Your task to perform on an android device: open app "ZOOM Cloud Meetings" (install if not already installed) and enter user name: "bauxite@icloud.com" and password: "dim" Image 0: 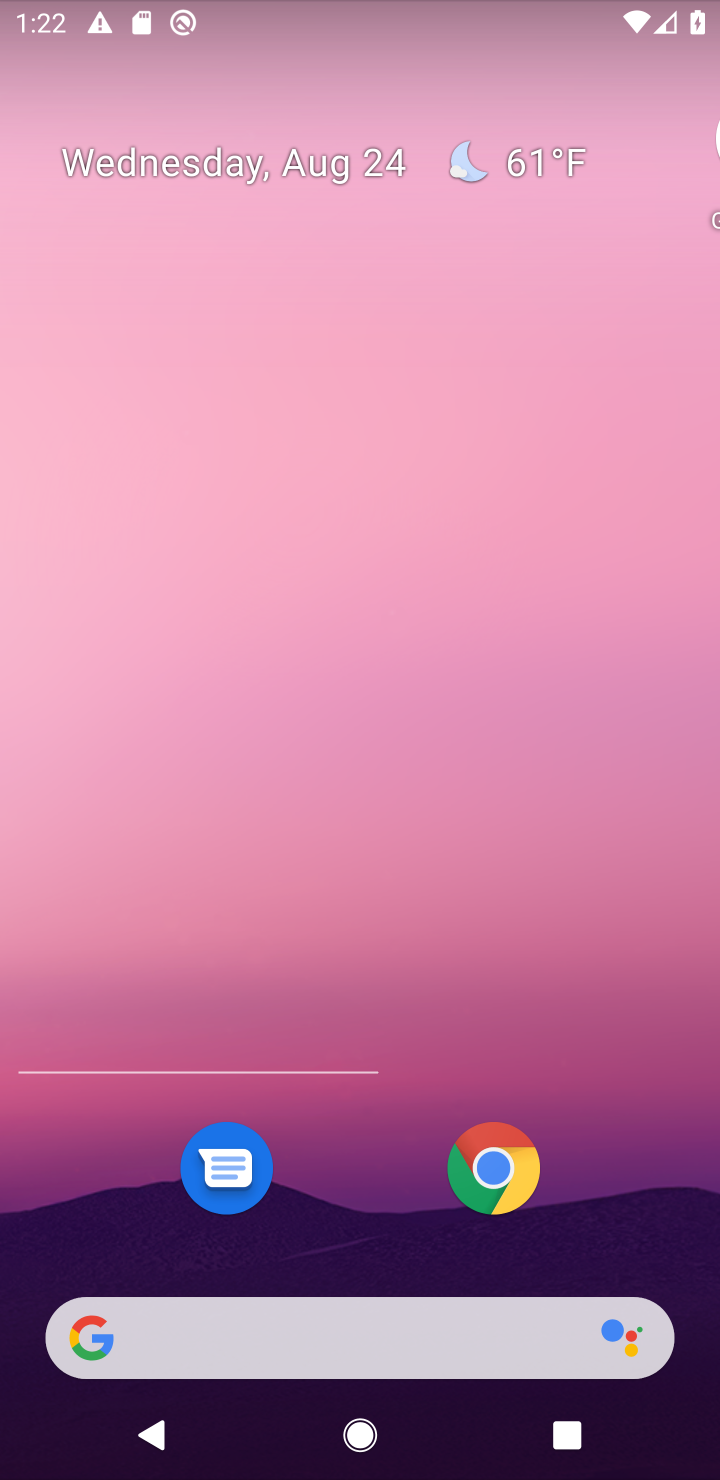
Step 0: press home button
Your task to perform on an android device: open app "ZOOM Cloud Meetings" (install if not already installed) and enter user name: "bauxite@icloud.com" and password: "dim" Image 1: 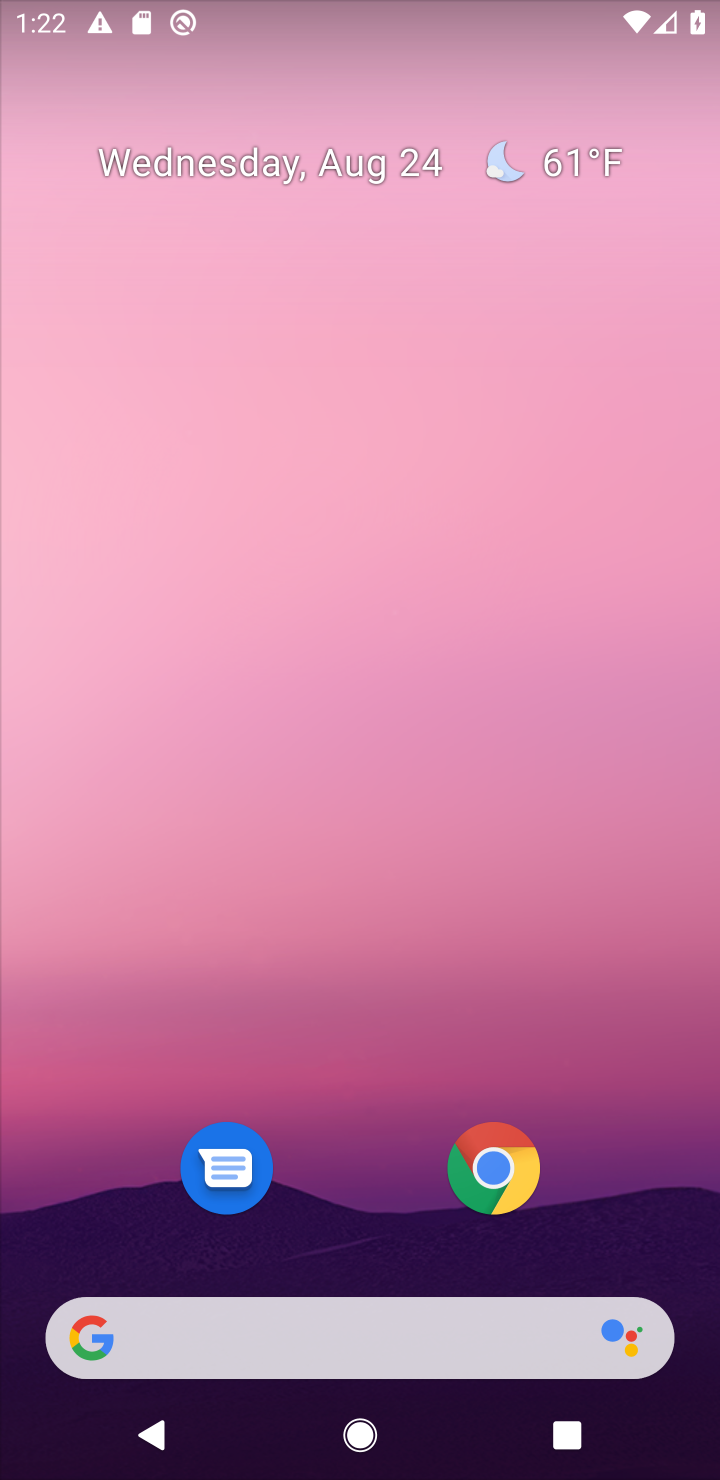
Step 1: drag from (677, 1237) to (664, 171)
Your task to perform on an android device: open app "ZOOM Cloud Meetings" (install if not already installed) and enter user name: "bauxite@icloud.com" and password: "dim" Image 2: 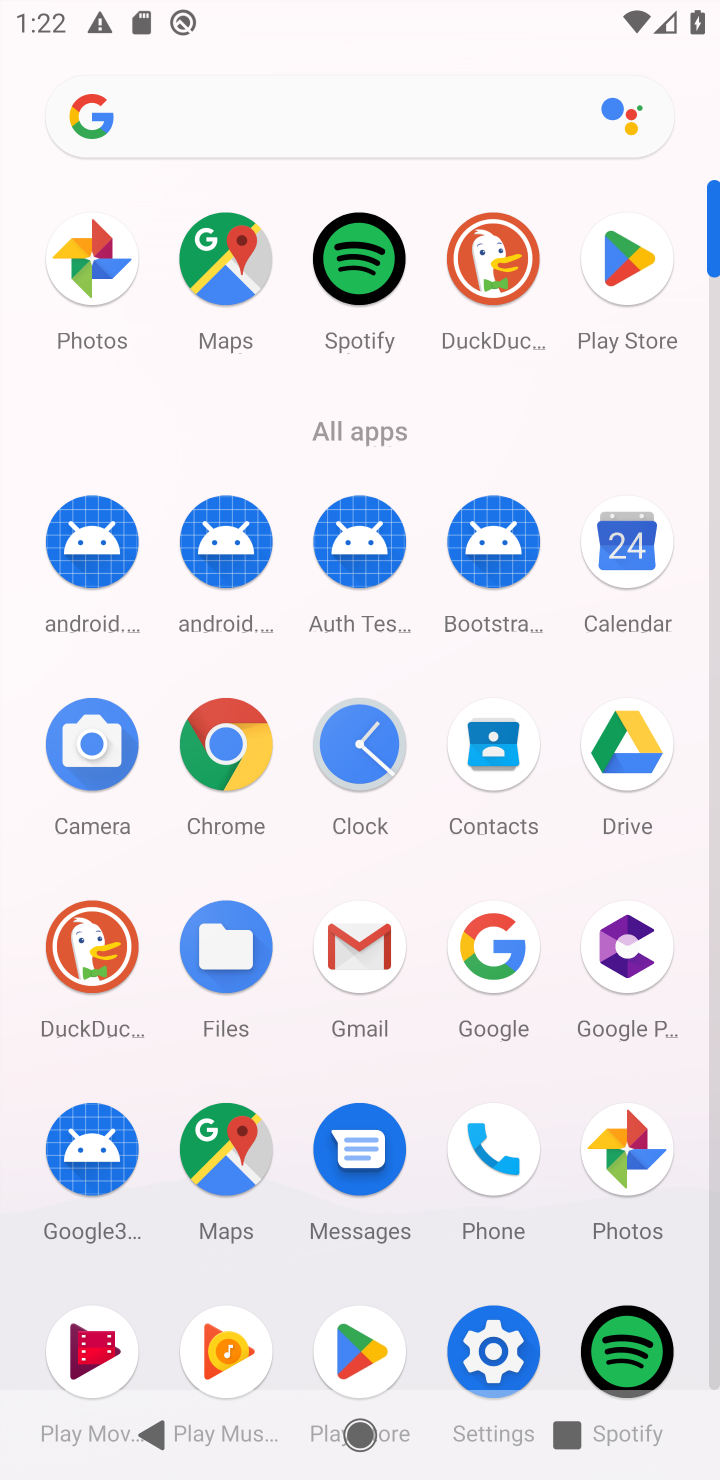
Step 2: click (363, 1351)
Your task to perform on an android device: open app "ZOOM Cloud Meetings" (install if not already installed) and enter user name: "bauxite@icloud.com" and password: "dim" Image 3: 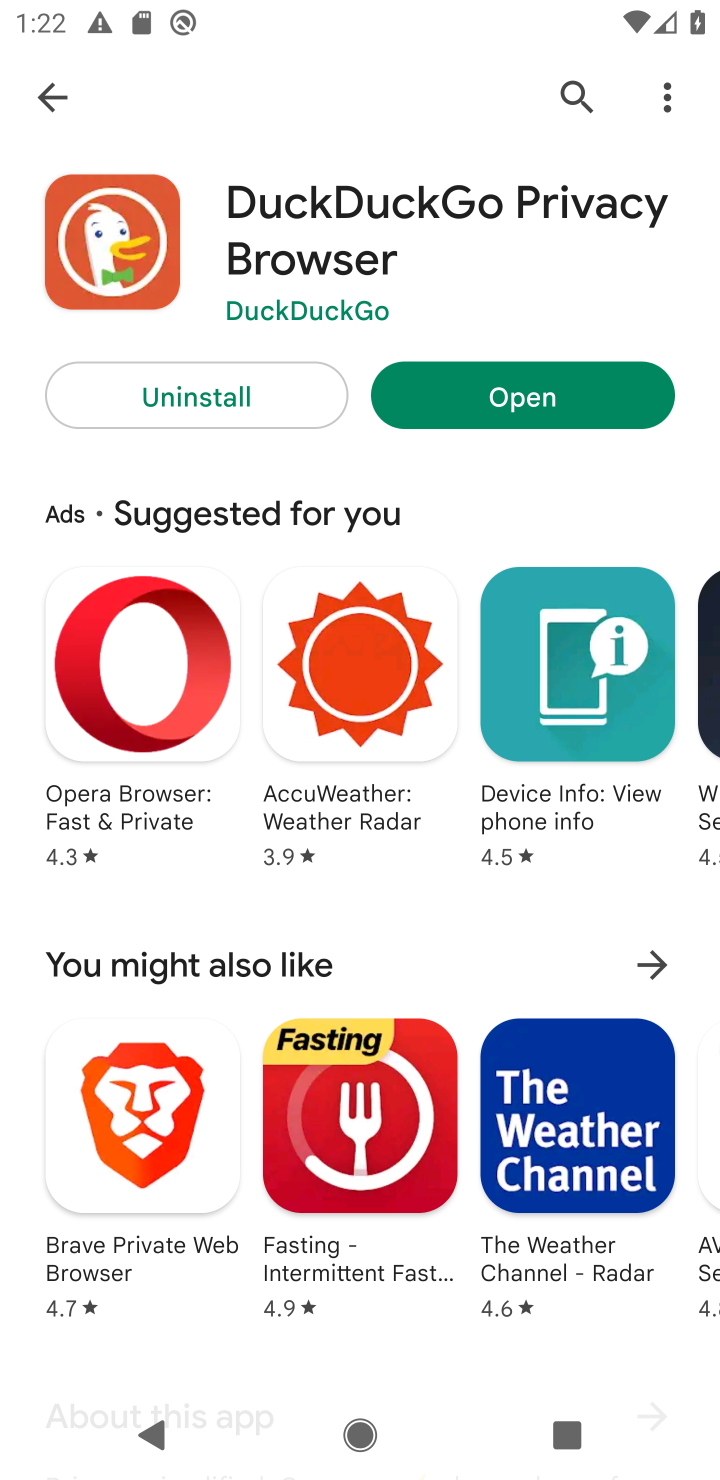
Step 3: click (566, 74)
Your task to perform on an android device: open app "ZOOM Cloud Meetings" (install if not already installed) and enter user name: "bauxite@icloud.com" and password: "dim" Image 4: 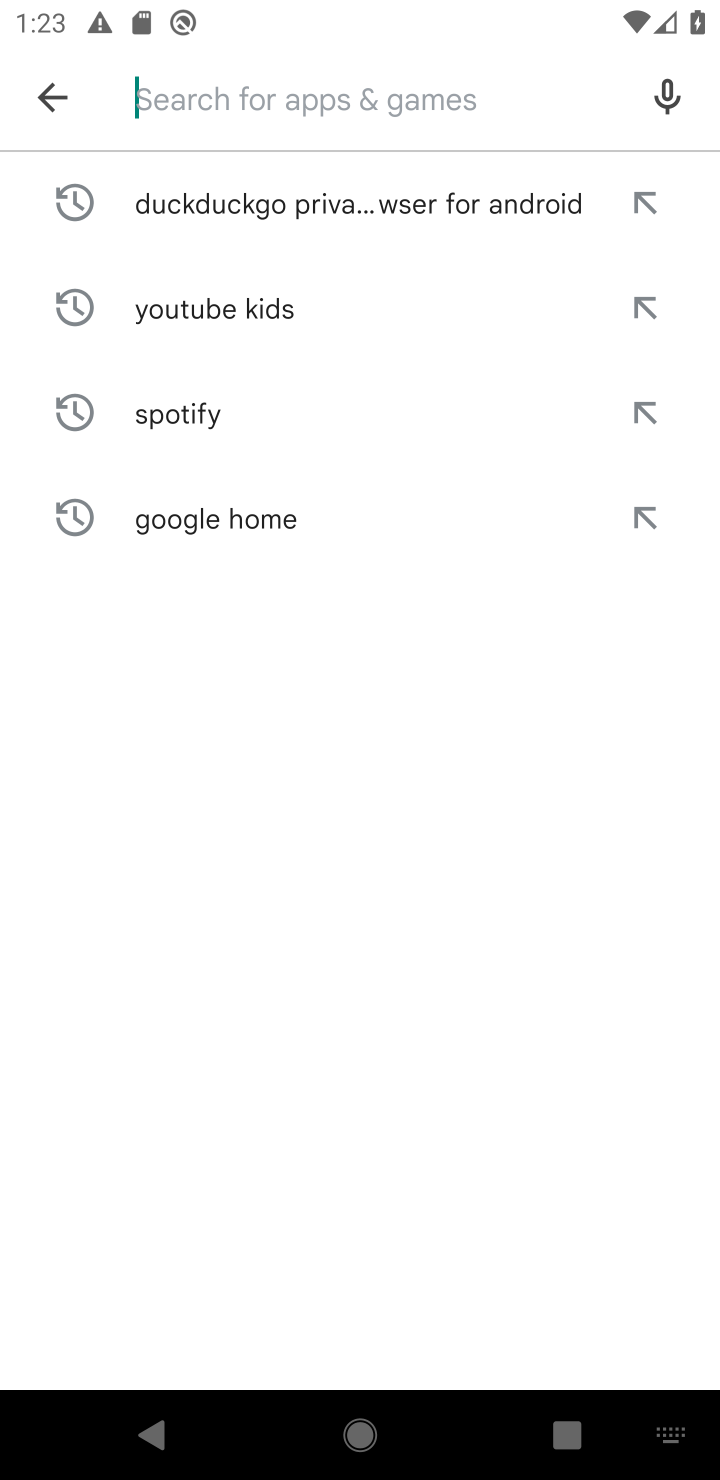
Step 4: type "ZOOM Cloud Meetings"
Your task to perform on an android device: open app "ZOOM Cloud Meetings" (install if not already installed) and enter user name: "bauxite@icloud.com" and password: "dim" Image 5: 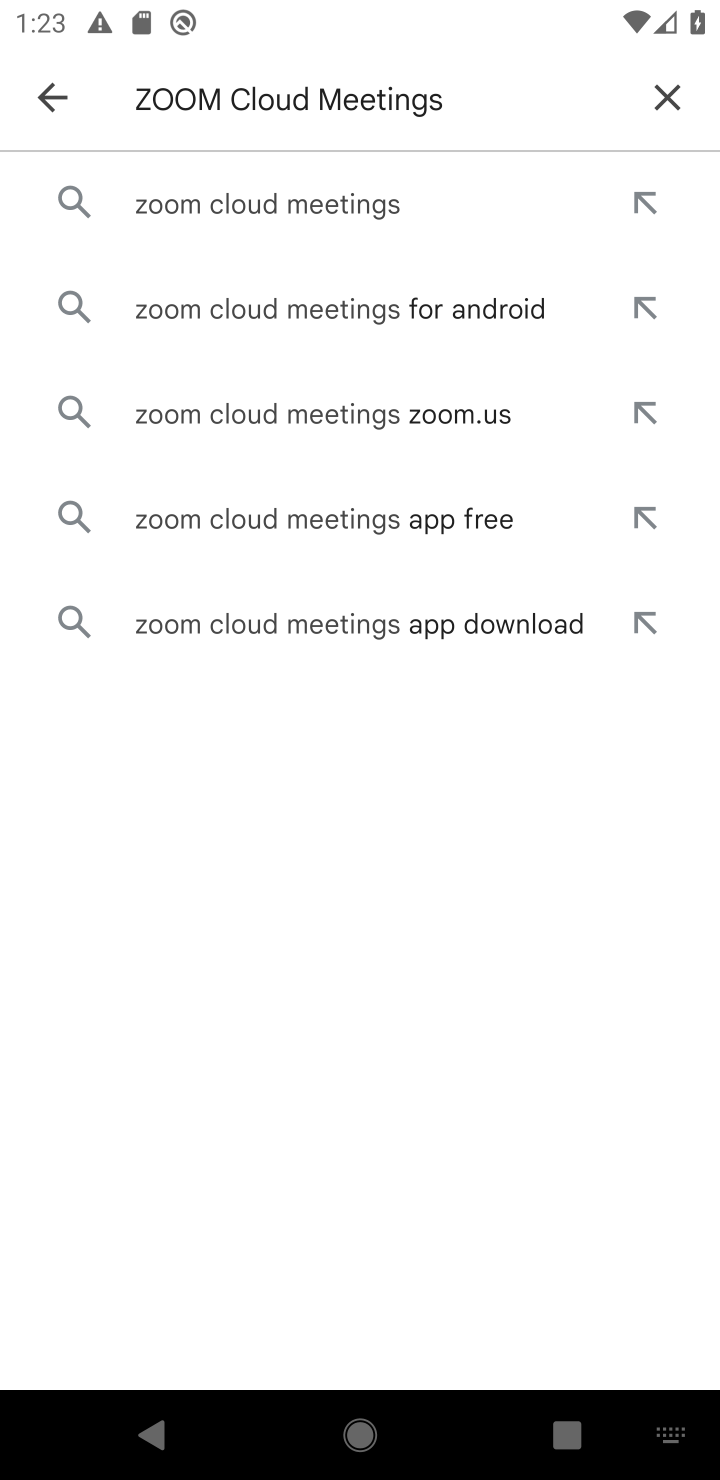
Step 5: click (225, 189)
Your task to perform on an android device: open app "ZOOM Cloud Meetings" (install if not already installed) and enter user name: "bauxite@icloud.com" and password: "dim" Image 6: 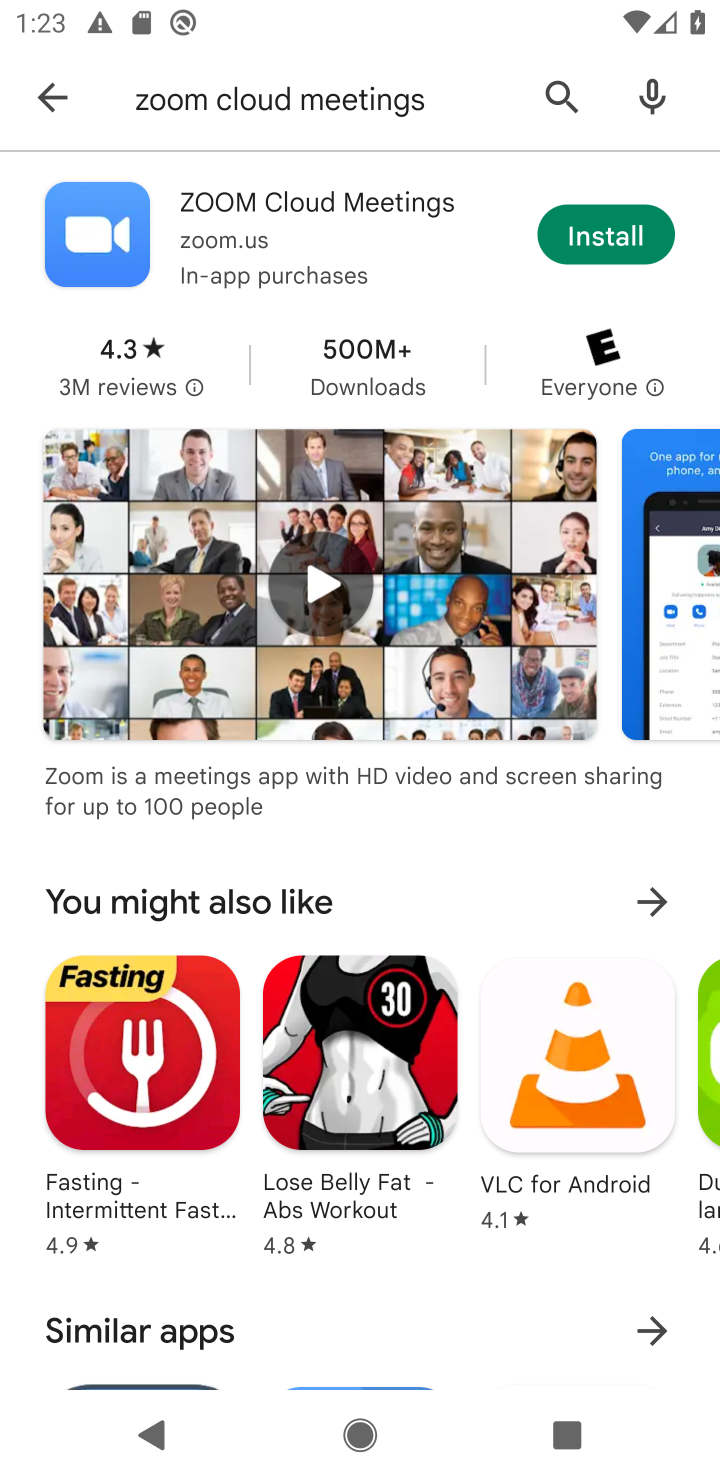
Step 6: click (218, 220)
Your task to perform on an android device: open app "ZOOM Cloud Meetings" (install if not already installed) and enter user name: "bauxite@icloud.com" and password: "dim" Image 7: 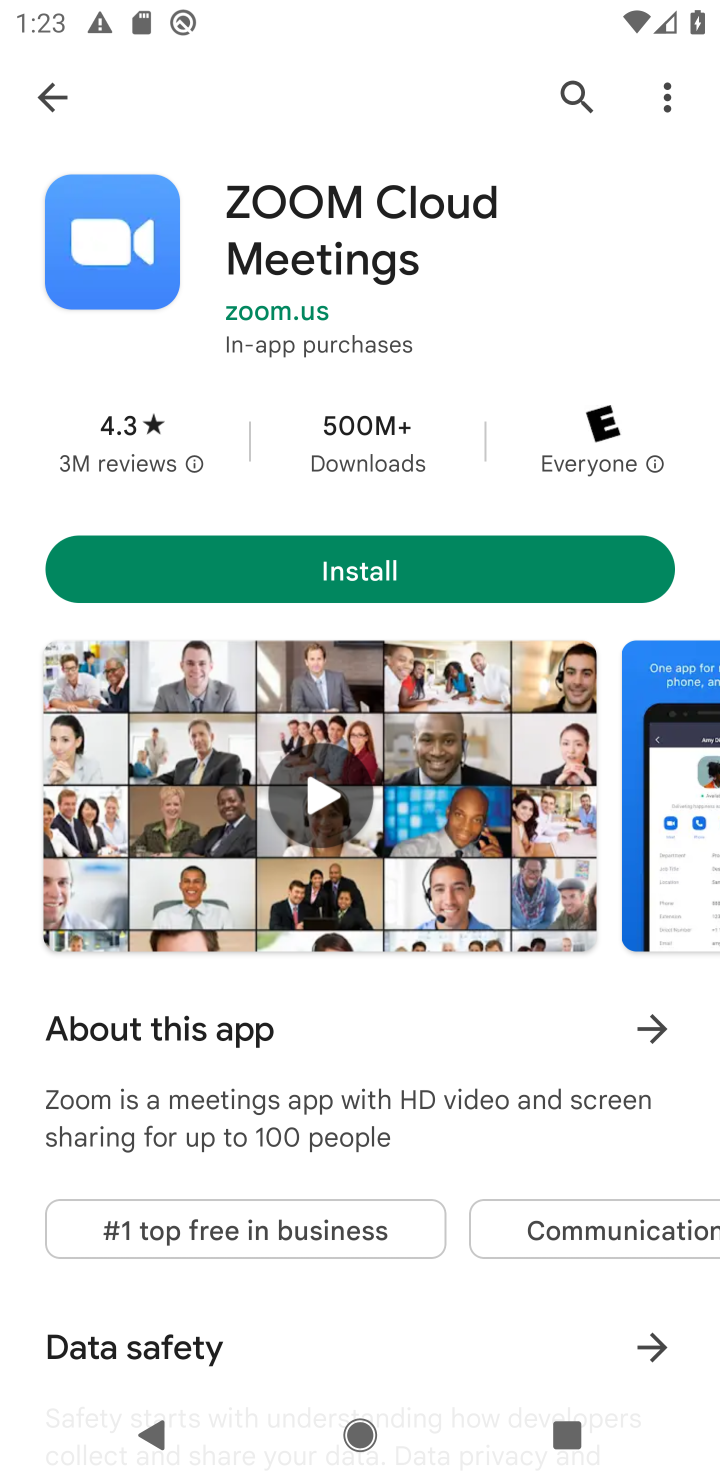
Step 7: click (364, 568)
Your task to perform on an android device: open app "ZOOM Cloud Meetings" (install if not already installed) and enter user name: "bauxite@icloud.com" and password: "dim" Image 8: 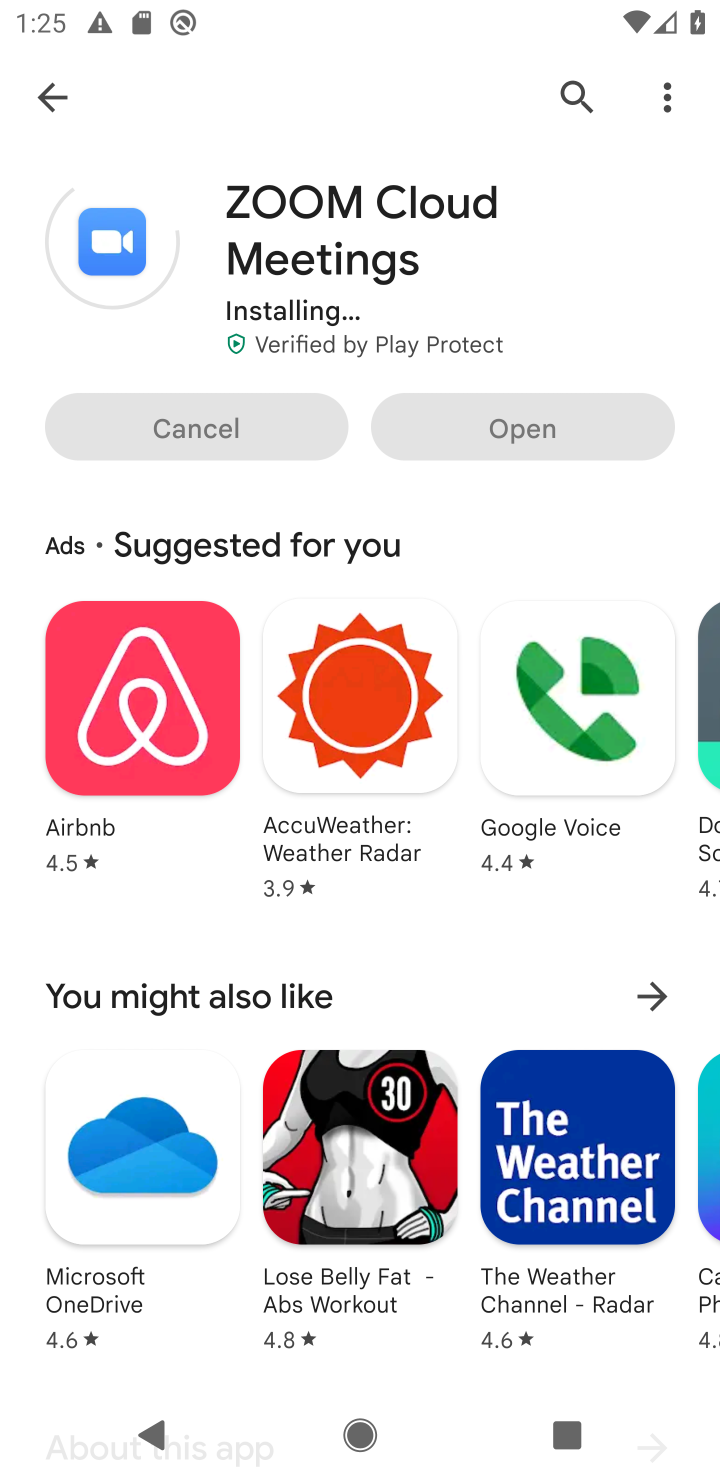
Step 8: drag from (349, 233) to (343, 352)
Your task to perform on an android device: open app "ZOOM Cloud Meetings" (install if not already installed) and enter user name: "bauxite@icloud.com" and password: "dim" Image 9: 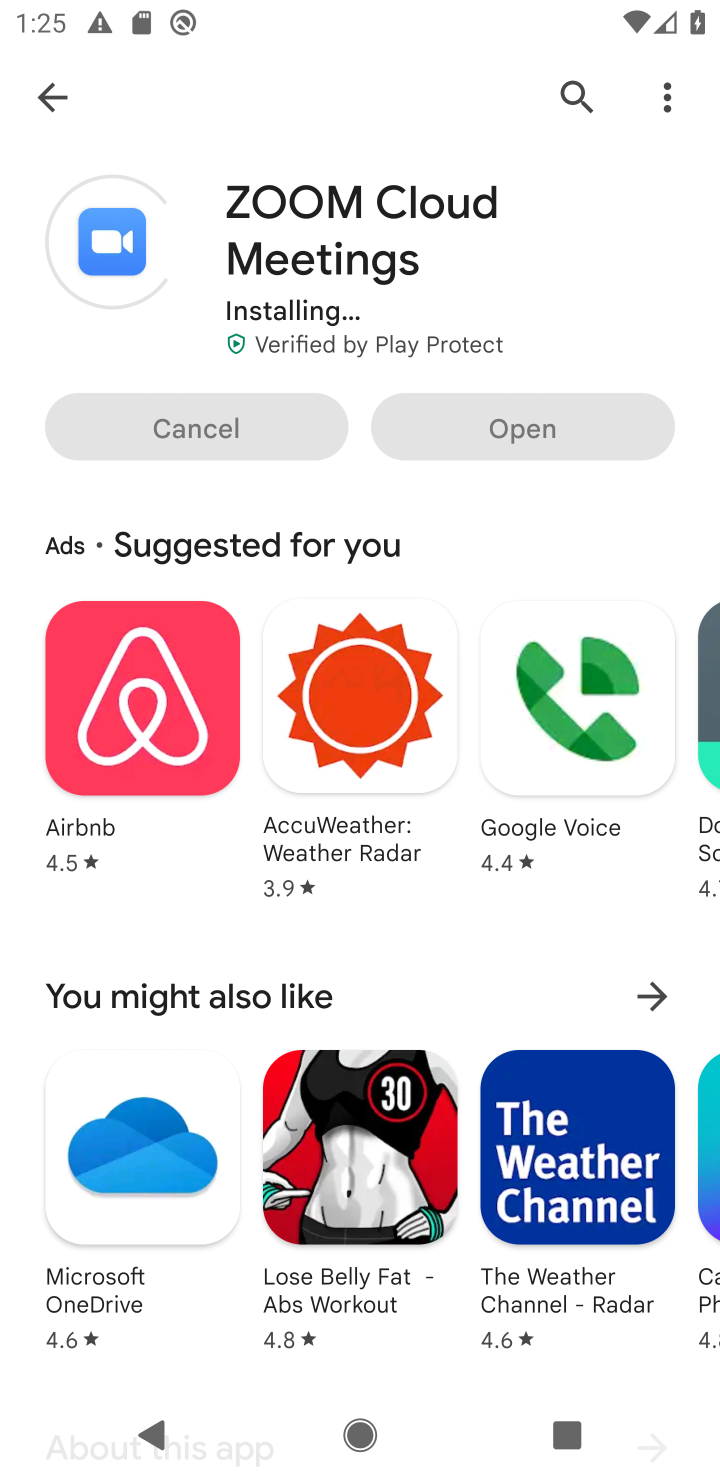
Step 9: click (518, 420)
Your task to perform on an android device: open app "ZOOM Cloud Meetings" (install if not already installed) and enter user name: "bauxite@icloud.com" and password: "dim" Image 10: 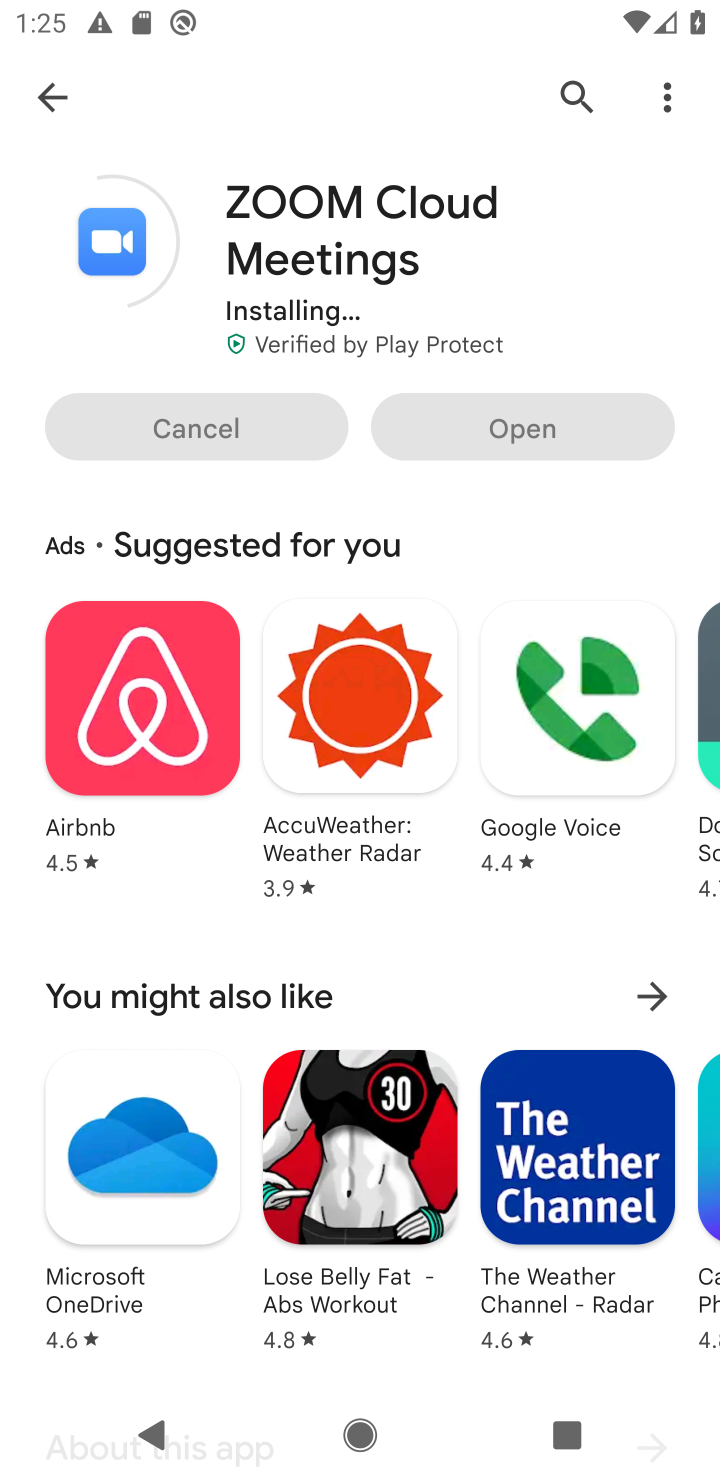
Step 10: drag from (366, 454) to (380, 255)
Your task to perform on an android device: open app "ZOOM Cloud Meetings" (install if not already installed) and enter user name: "bauxite@icloud.com" and password: "dim" Image 11: 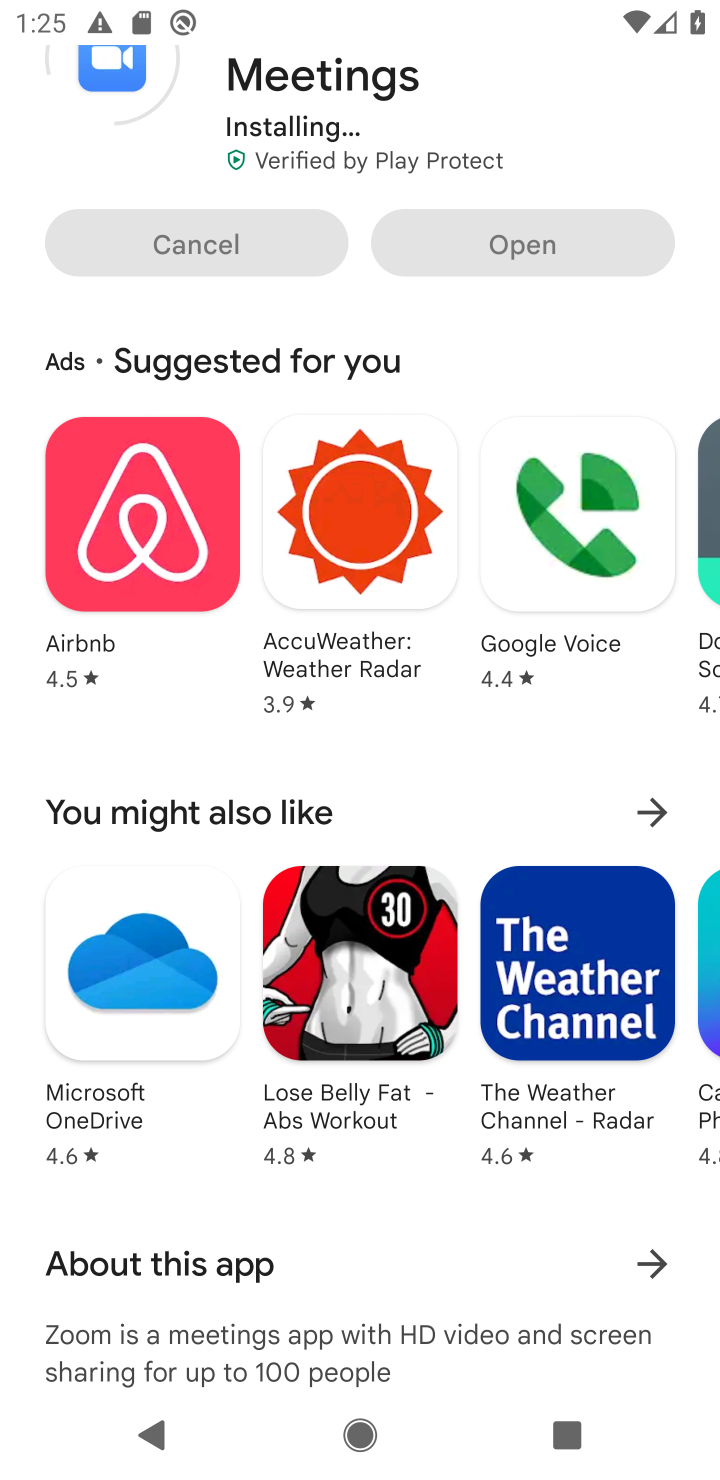
Step 11: drag from (380, 255) to (368, 491)
Your task to perform on an android device: open app "ZOOM Cloud Meetings" (install if not already installed) and enter user name: "bauxite@icloud.com" and password: "dim" Image 12: 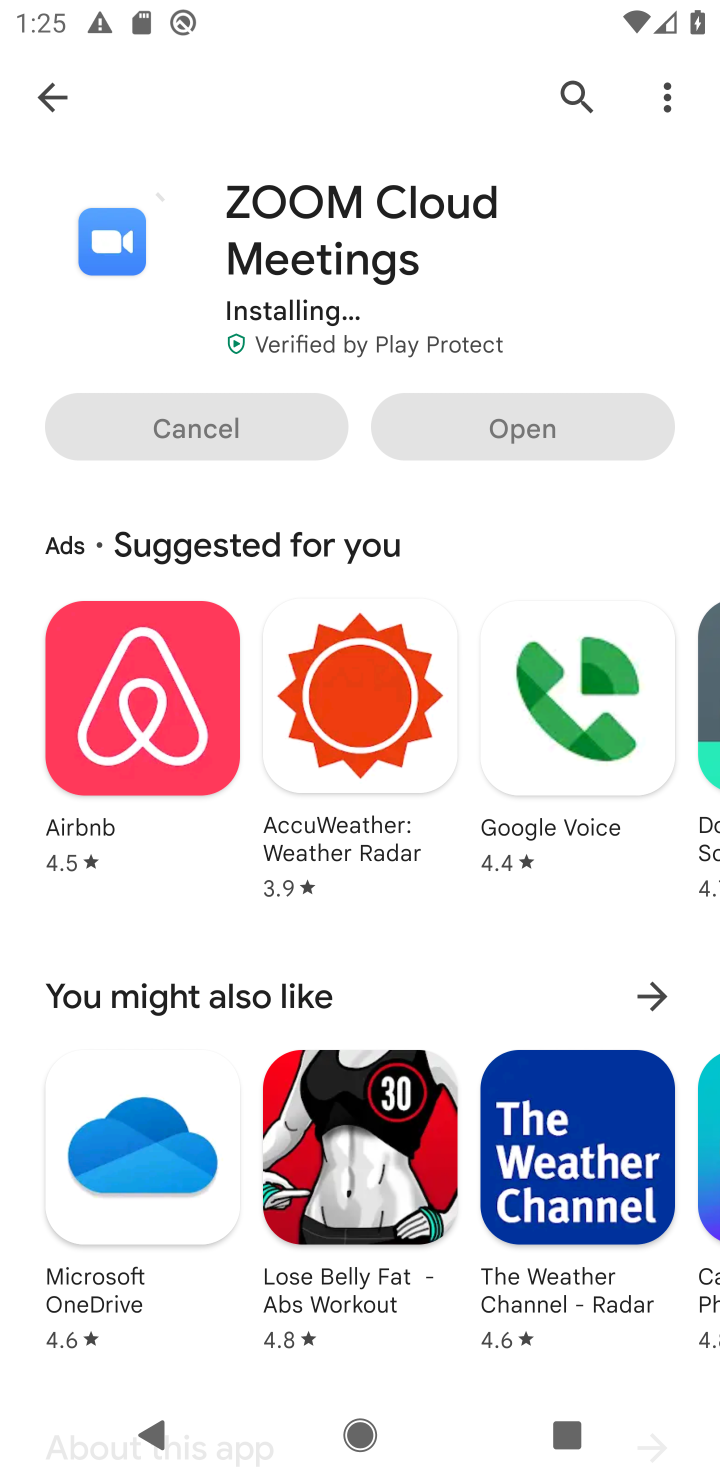
Step 12: press back button
Your task to perform on an android device: open app "ZOOM Cloud Meetings" (install if not already installed) and enter user name: "bauxite@icloud.com" and password: "dim" Image 13: 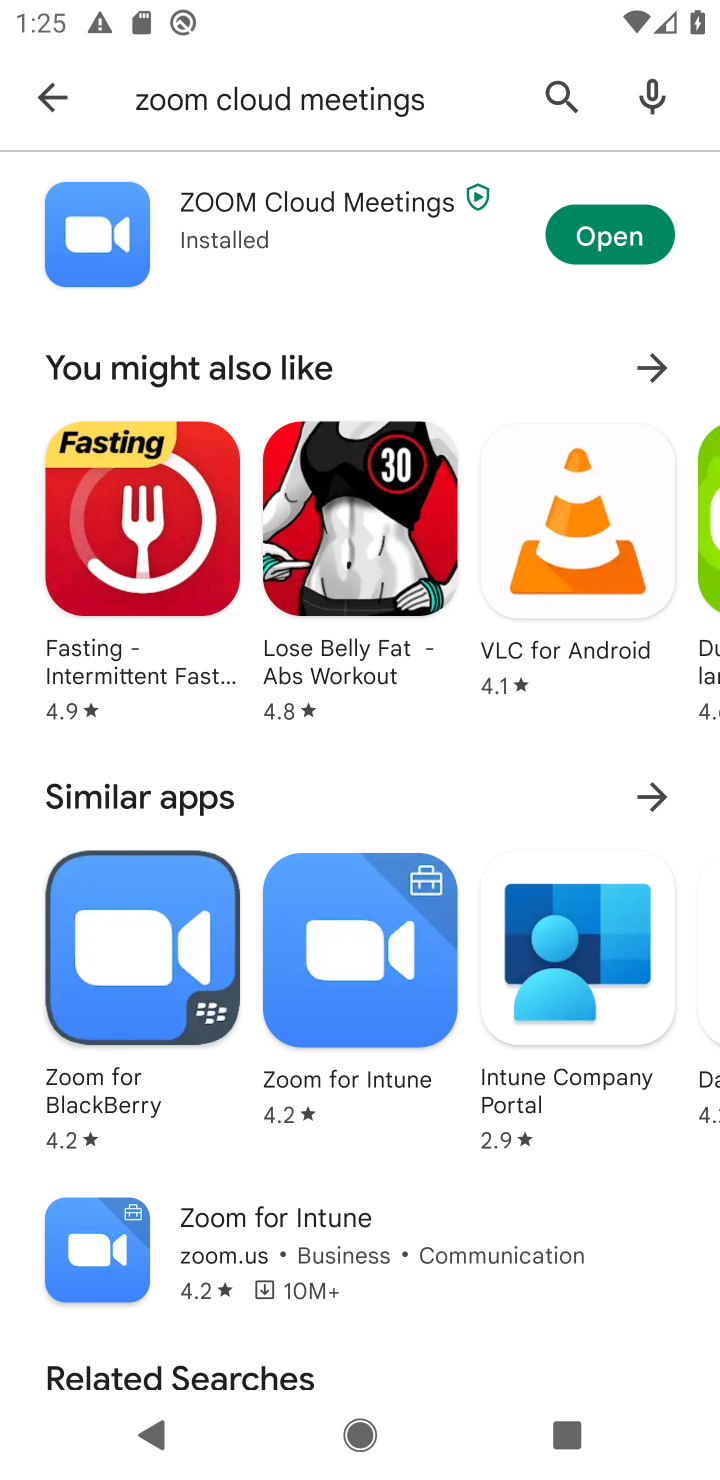
Step 13: click (156, 208)
Your task to perform on an android device: open app "ZOOM Cloud Meetings" (install if not already installed) and enter user name: "bauxite@icloud.com" and password: "dim" Image 14: 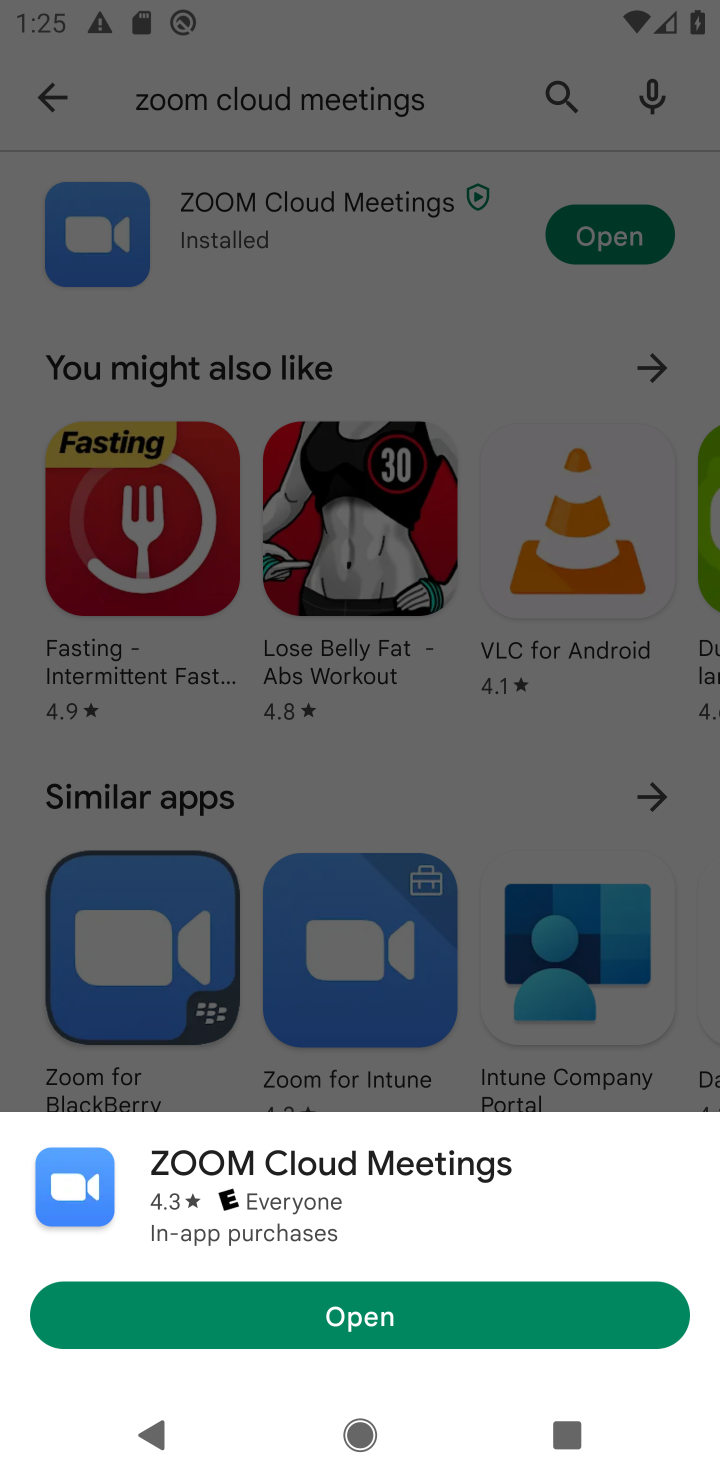
Step 14: click (358, 1312)
Your task to perform on an android device: open app "ZOOM Cloud Meetings" (install if not already installed) and enter user name: "bauxite@icloud.com" and password: "dim" Image 15: 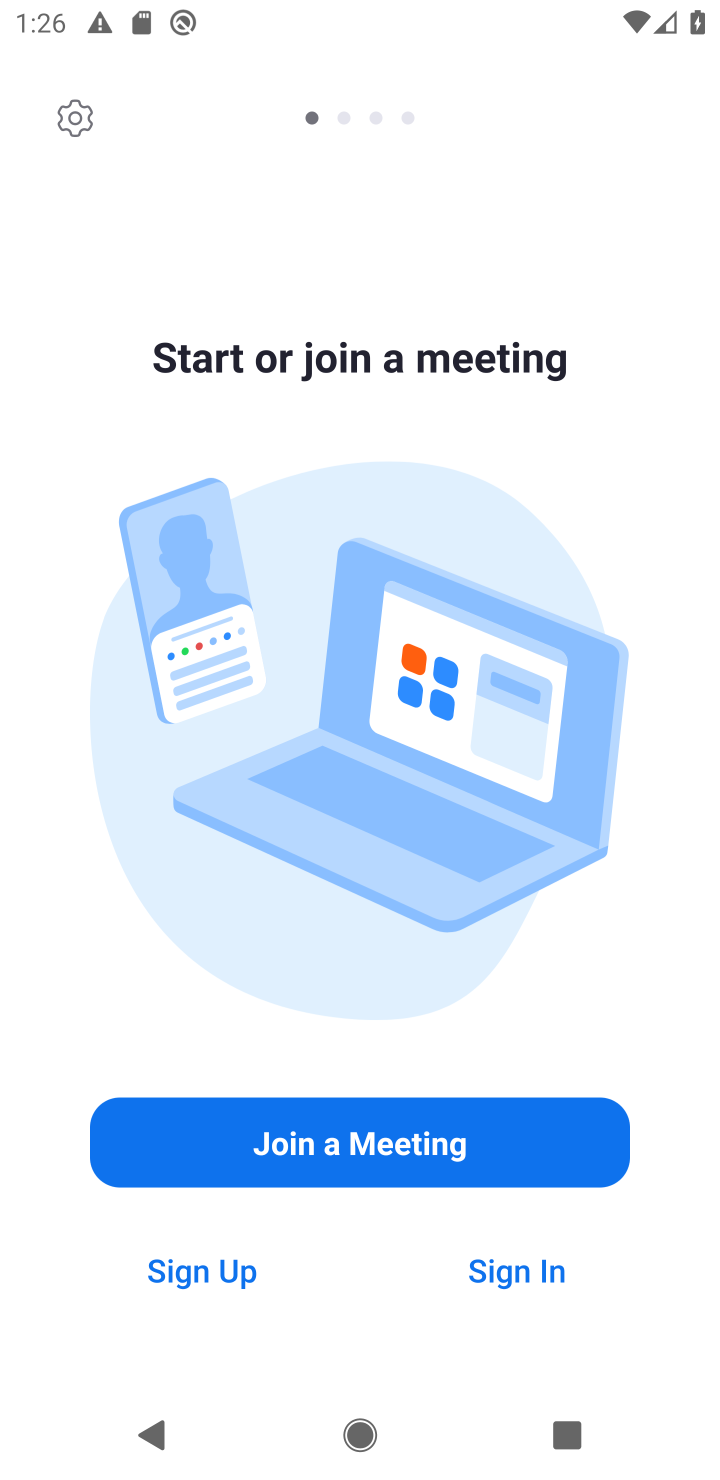
Step 15: click (503, 1270)
Your task to perform on an android device: open app "ZOOM Cloud Meetings" (install if not already installed) and enter user name: "bauxite@icloud.com" and password: "dim" Image 16: 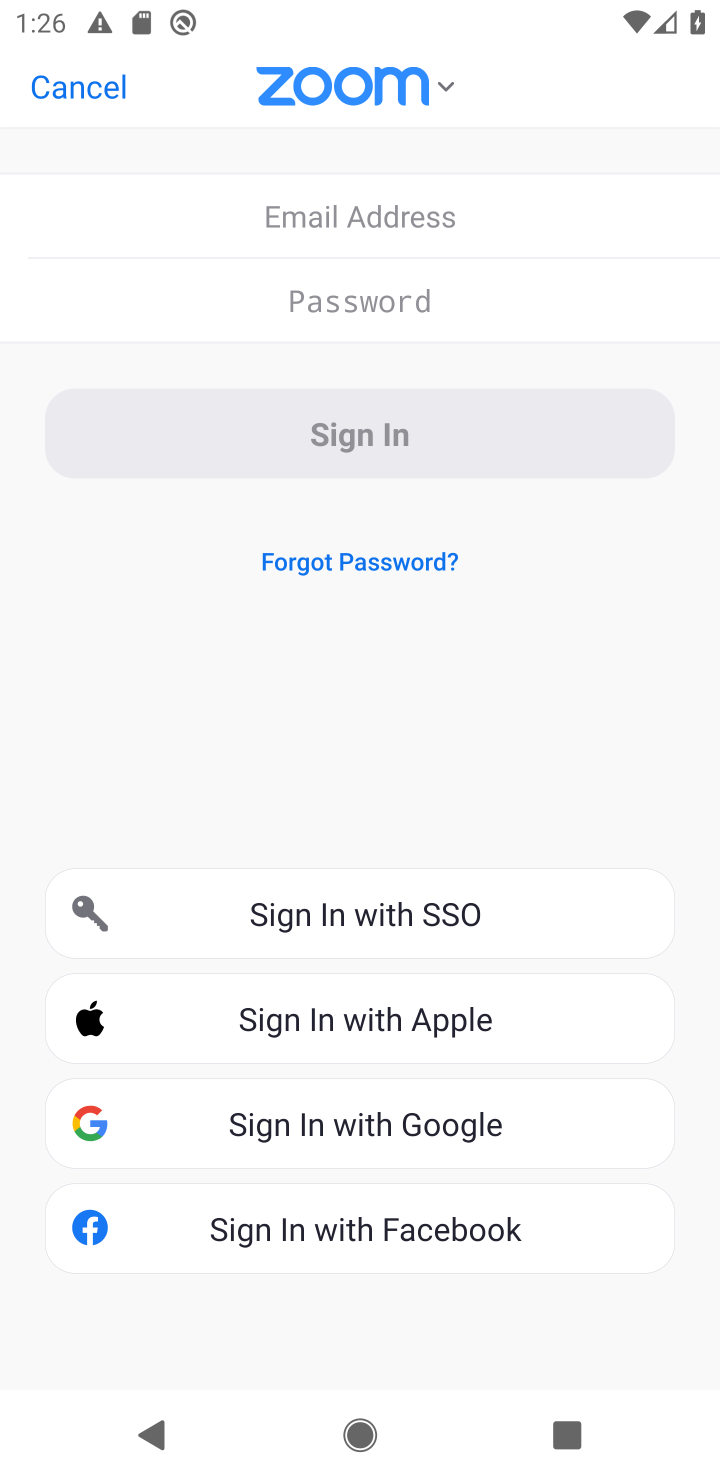
Step 16: click (347, 209)
Your task to perform on an android device: open app "ZOOM Cloud Meetings" (install if not already installed) and enter user name: "bauxite@icloud.com" and password: "dim" Image 17: 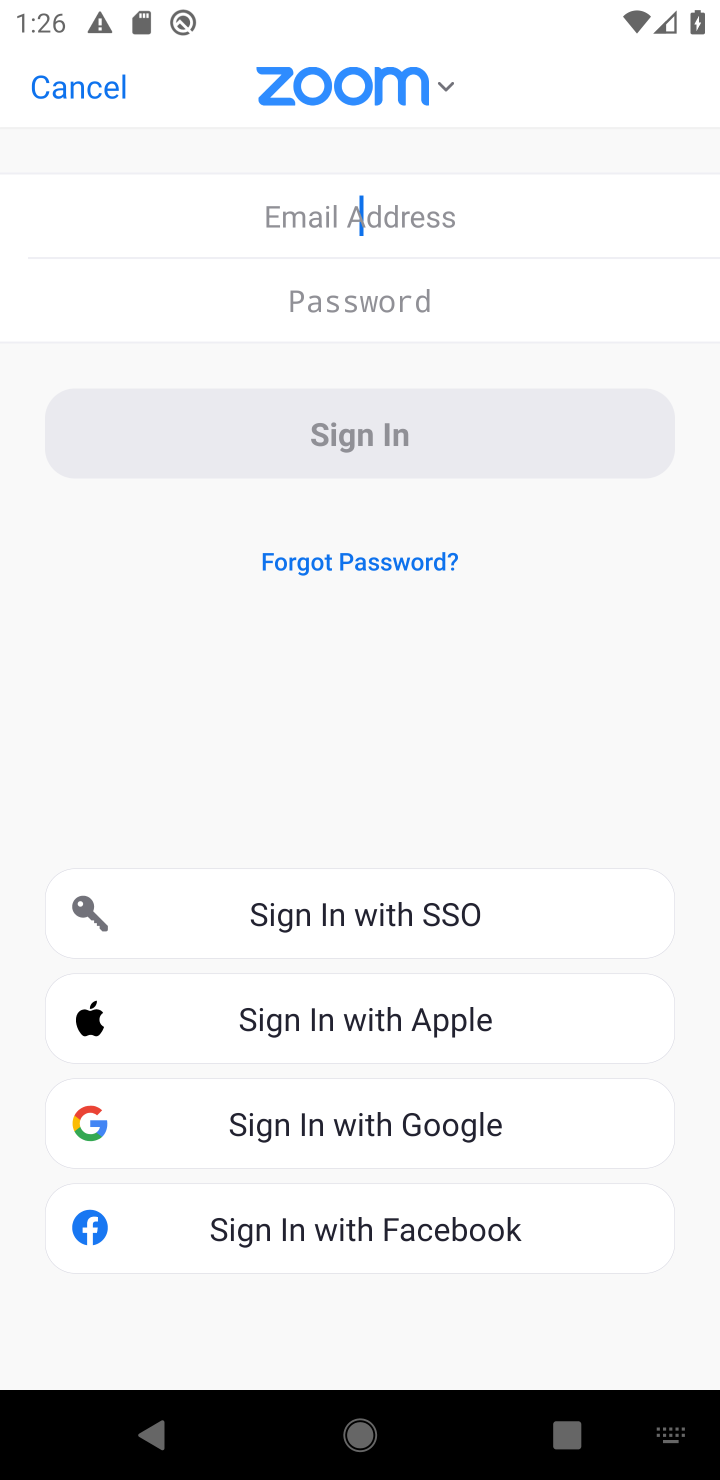
Step 17: type "bauxite@icloud.com"
Your task to perform on an android device: open app "ZOOM Cloud Meetings" (install if not already installed) and enter user name: "bauxite@icloud.com" and password: "dim" Image 18: 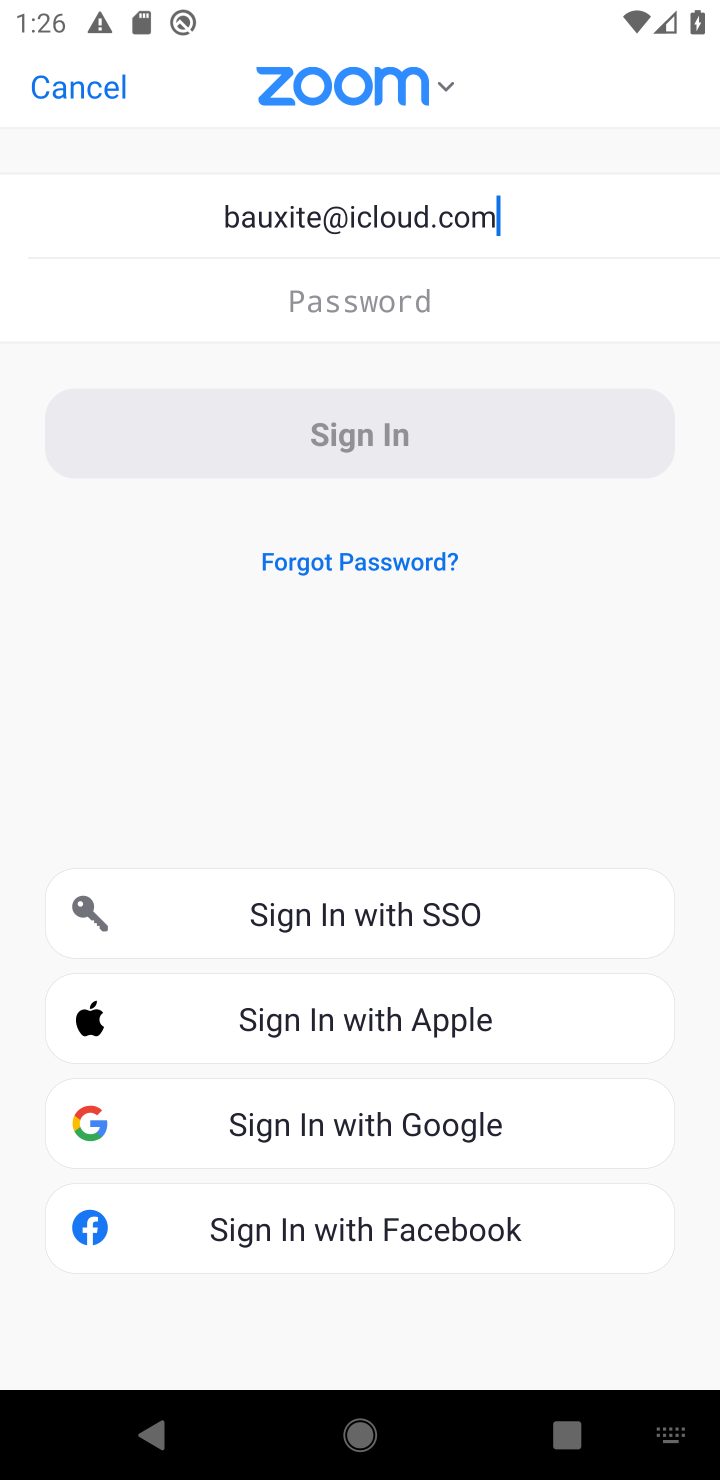
Step 18: click (322, 296)
Your task to perform on an android device: open app "ZOOM Cloud Meetings" (install if not already installed) and enter user name: "bauxite@icloud.com" and password: "dim" Image 19: 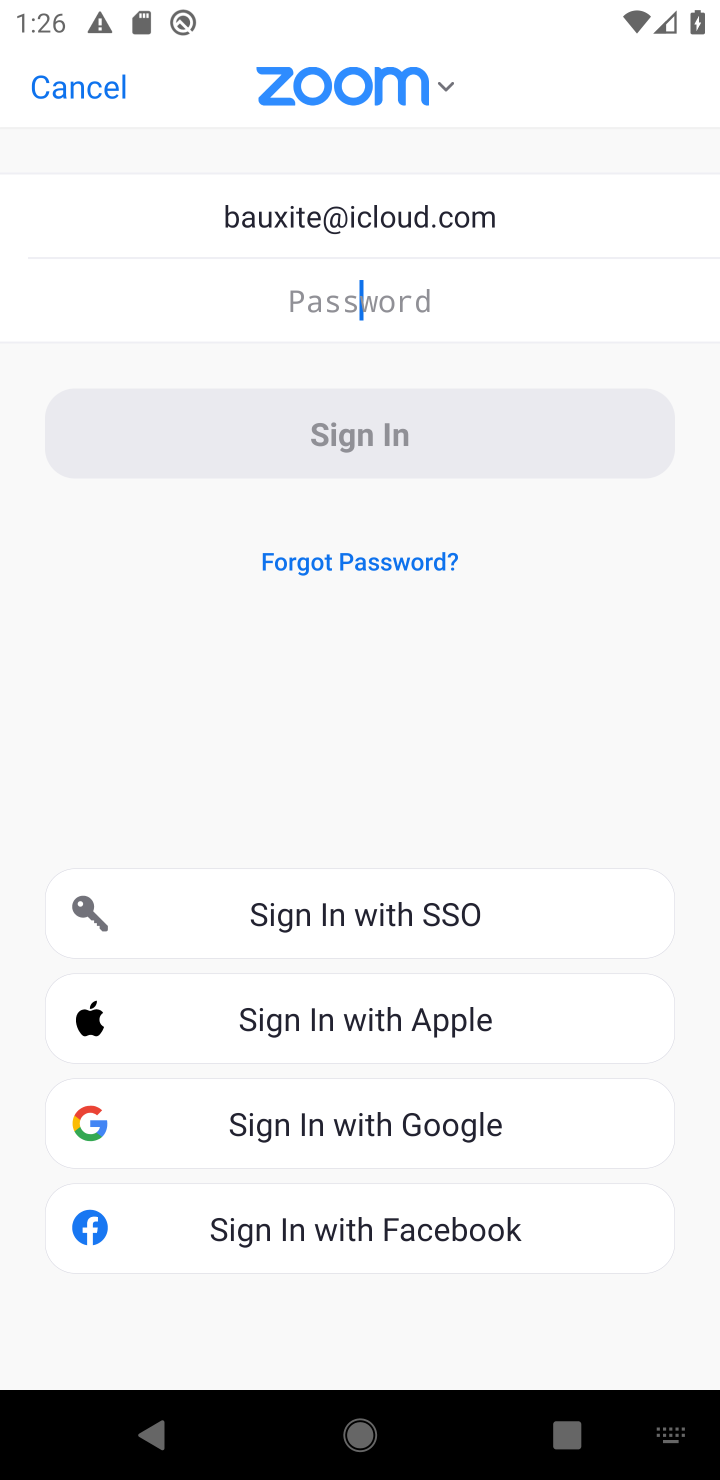
Step 19: type "dim"
Your task to perform on an android device: open app "ZOOM Cloud Meetings" (install if not already installed) and enter user name: "bauxite@icloud.com" and password: "dim" Image 20: 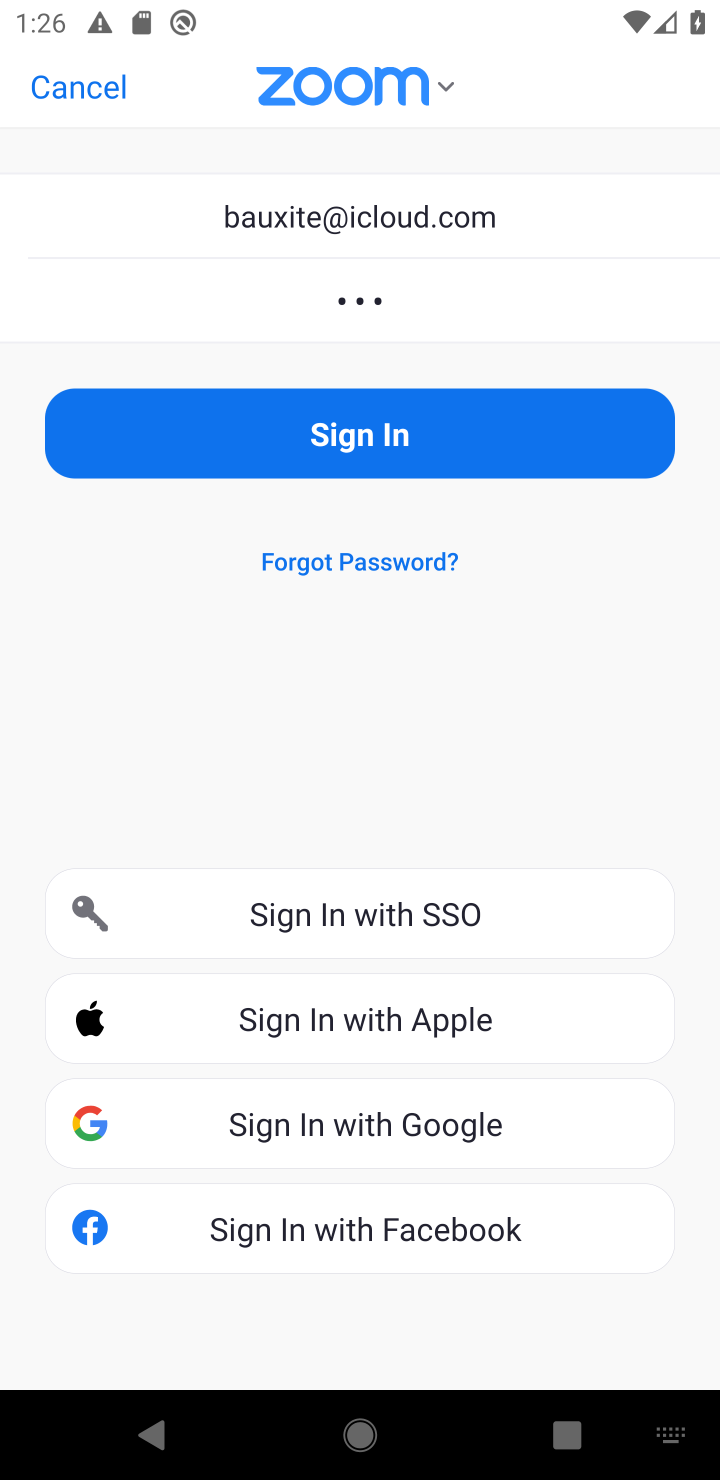
Step 20: task complete